Your task to perform on an android device: Search for Italian restaurants on Maps Image 0: 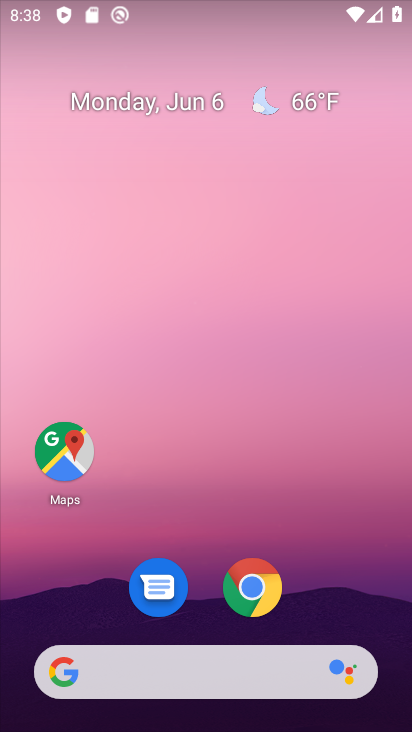
Step 0: click (62, 465)
Your task to perform on an android device: Search for Italian restaurants on Maps Image 1: 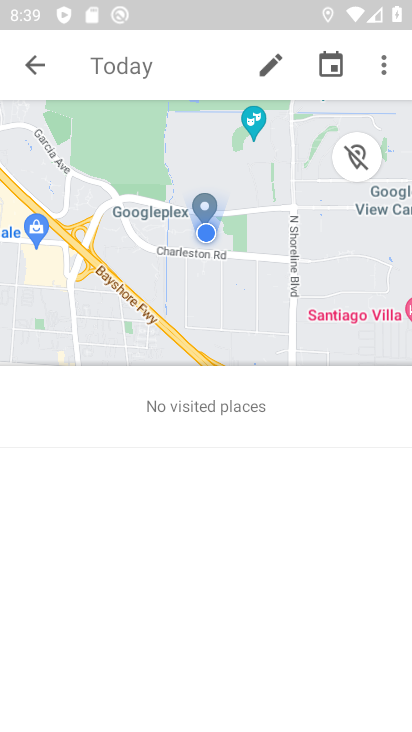
Step 1: click (44, 58)
Your task to perform on an android device: Search for Italian restaurants on Maps Image 2: 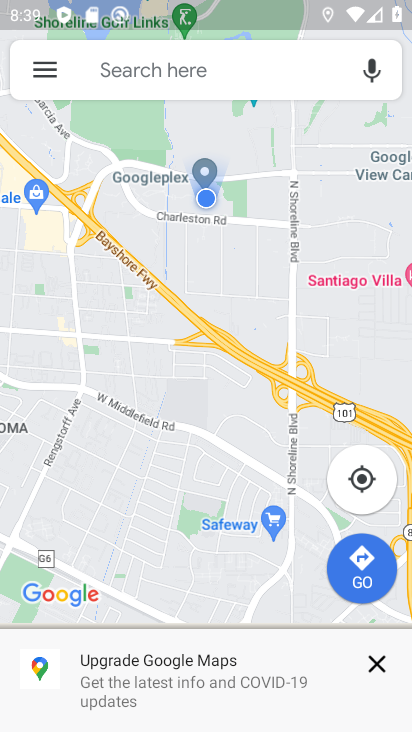
Step 2: click (118, 77)
Your task to perform on an android device: Search for Italian restaurants on Maps Image 3: 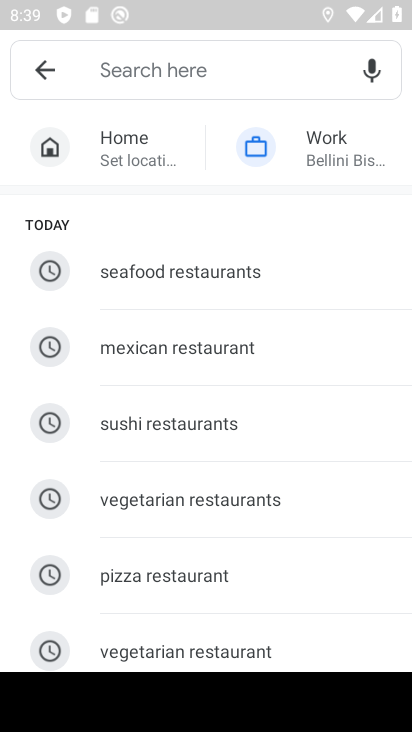
Step 3: type "italian restaurants"
Your task to perform on an android device: Search for Italian restaurants on Maps Image 4: 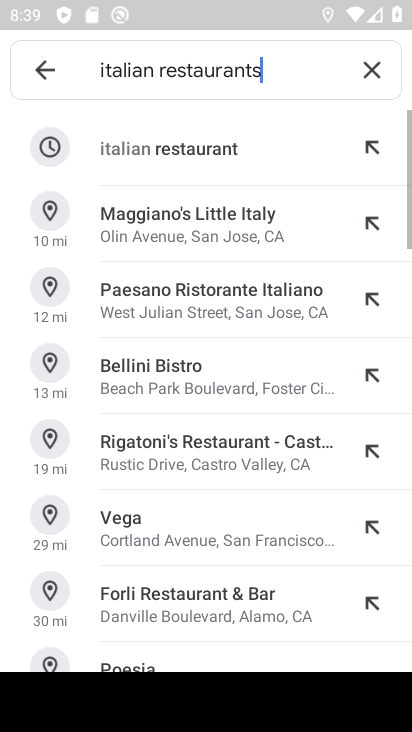
Step 4: click (202, 145)
Your task to perform on an android device: Search for Italian restaurants on Maps Image 5: 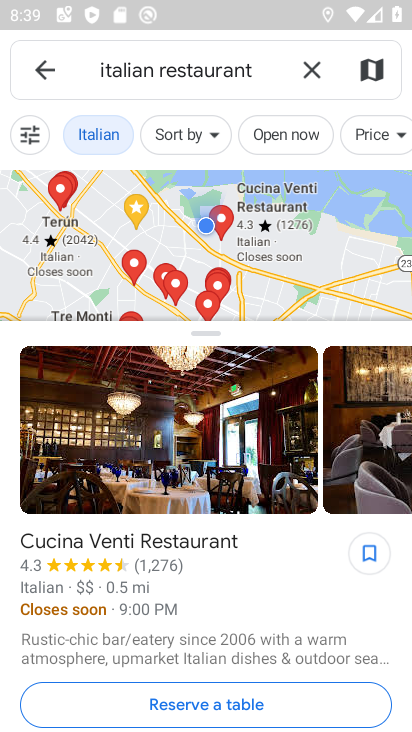
Step 5: task complete